Your task to perform on an android device: Find coffee shops on Maps Image 0: 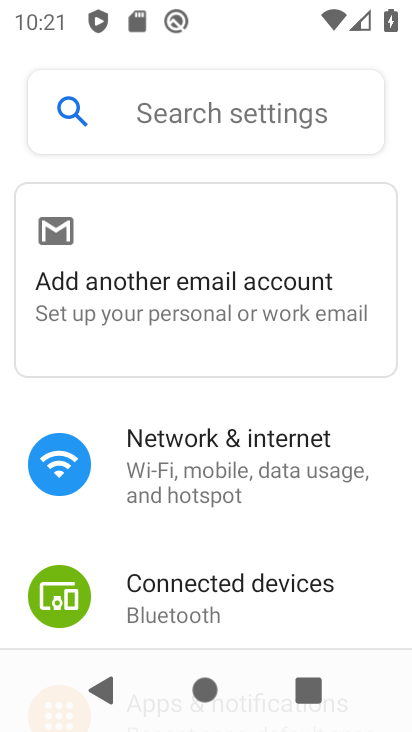
Step 0: press back button
Your task to perform on an android device: Find coffee shops on Maps Image 1: 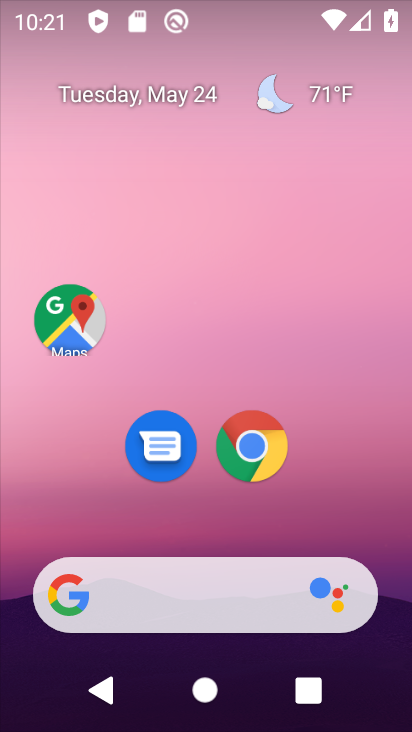
Step 1: click (70, 320)
Your task to perform on an android device: Find coffee shops on Maps Image 2: 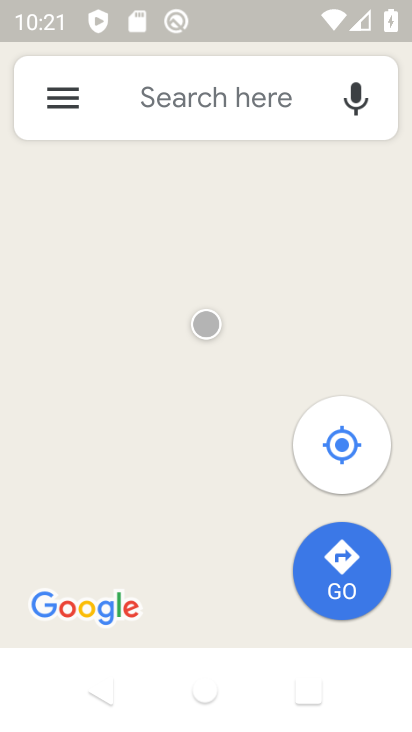
Step 2: click (206, 97)
Your task to perform on an android device: Find coffee shops on Maps Image 3: 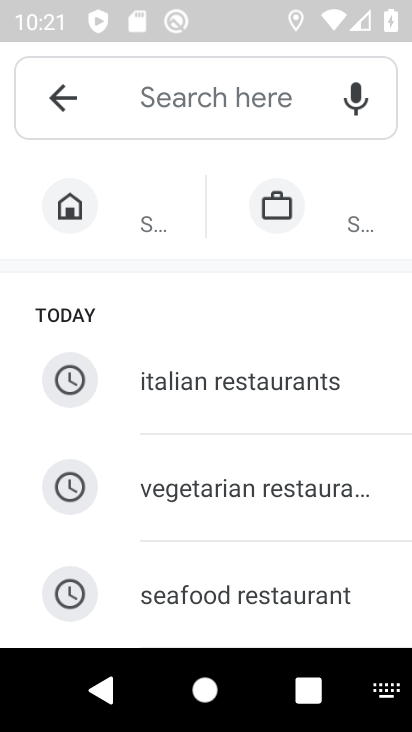
Step 3: type "coffee shops"
Your task to perform on an android device: Find coffee shops on Maps Image 4: 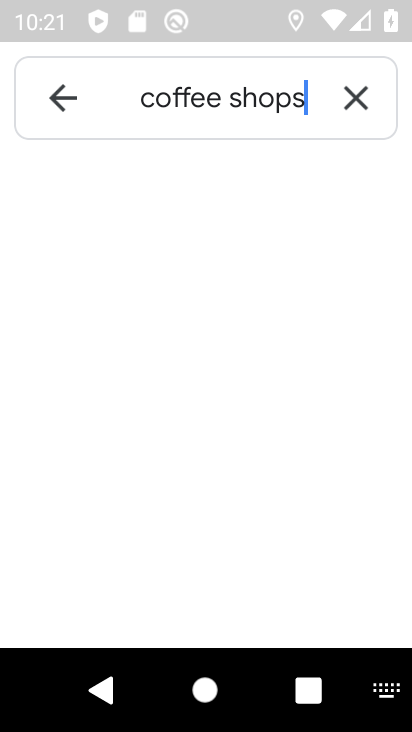
Step 4: type ""
Your task to perform on an android device: Find coffee shops on Maps Image 5: 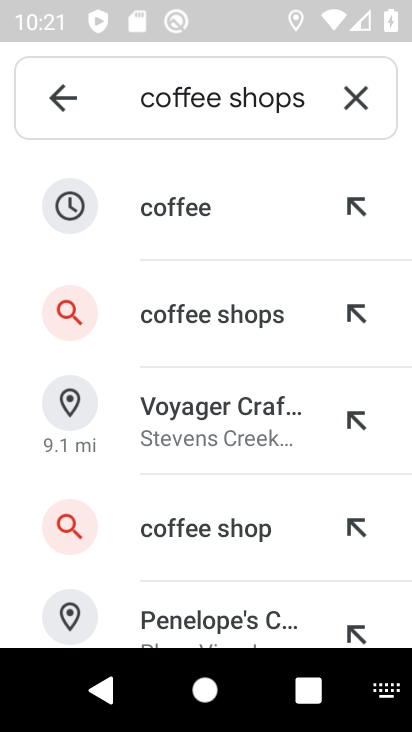
Step 5: click (201, 316)
Your task to perform on an android device: Find coffee shops on Maps Image 6: 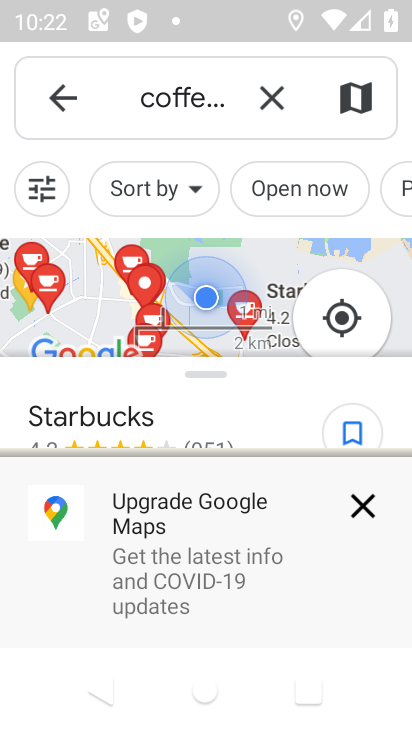
Step 6: click (363, 502)
Your task to perform on an android device: Find coffee shops on Maps Image 7: 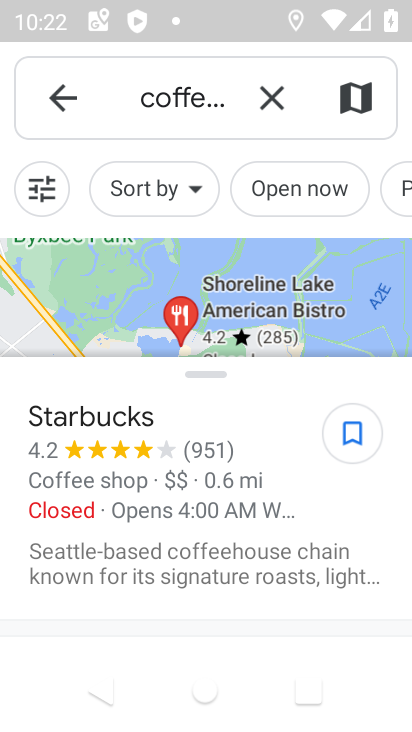
Step 7: task complete